Your task to perform on an android device: toggle wifi Image 0: 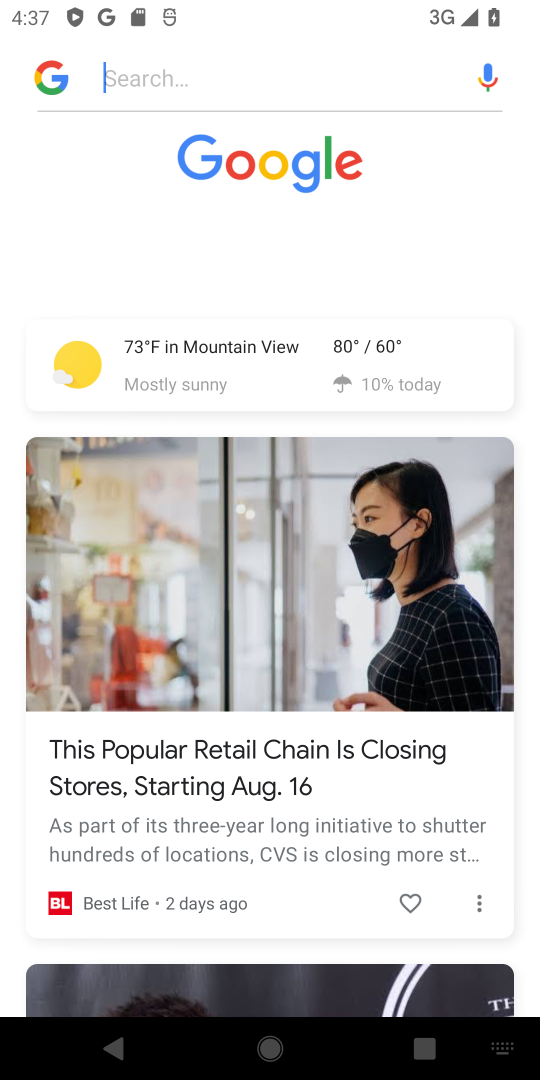
Step 0: press home button
Your task to perform on an android device: toggle wifi Image 1: 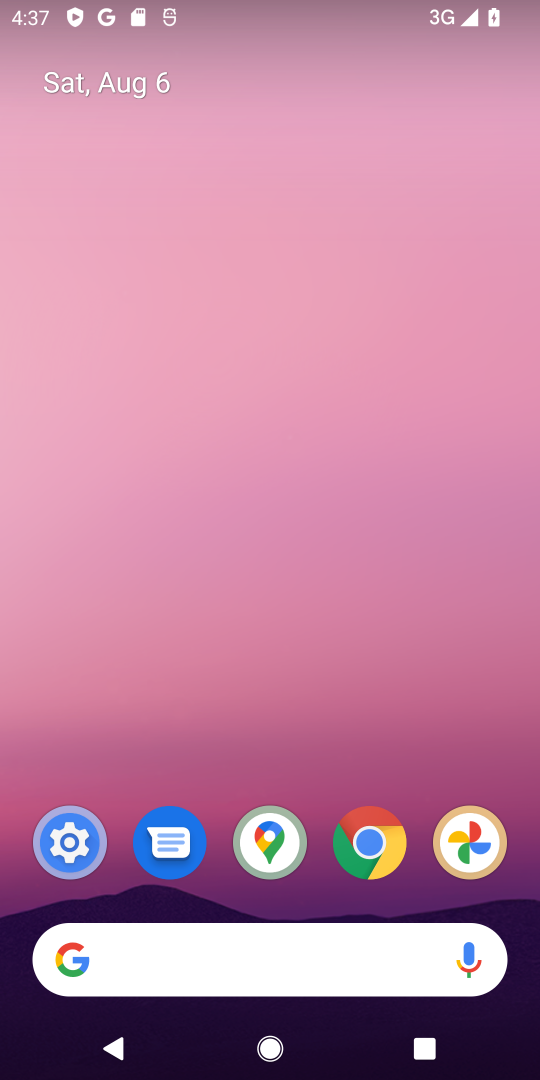
Step 1: click (59, 833)
Your task to perform on an android device: toggle wifi Image 2: 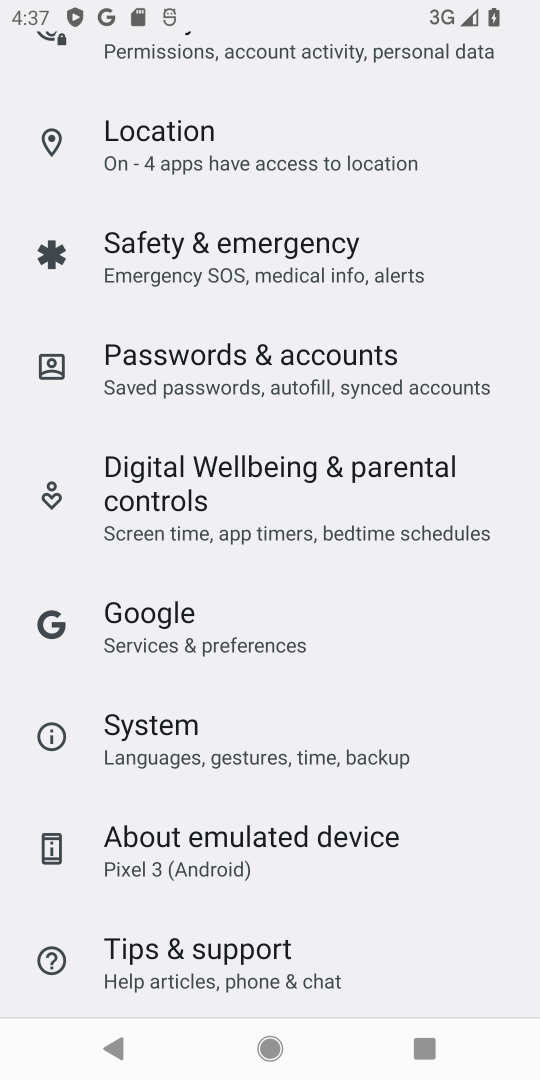
Step 2: drag from (326, 240) to (382, 752)
Your task to perform on an android device: toggle wifi Image 3: 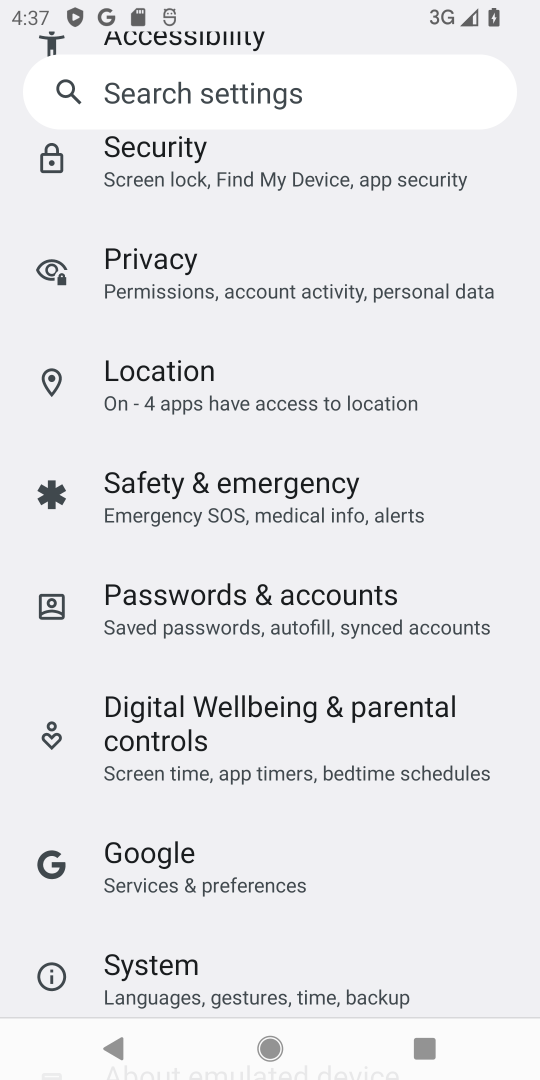
Step 3: drag from (357, 128) to (416, 793)
Your task to perform on an android device: toggle wifi Image 4: 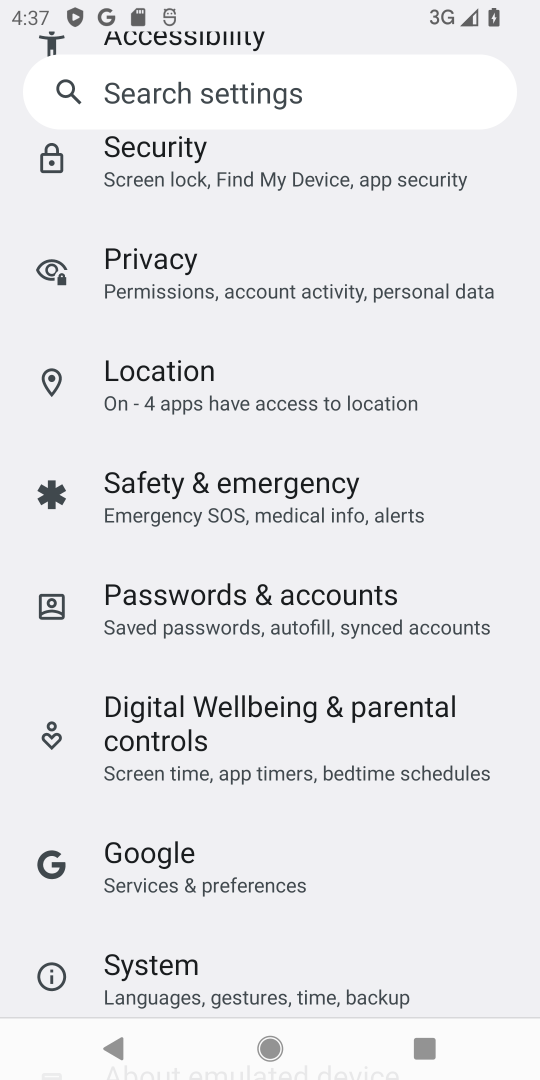
Step 4: drag from (409, 150) to (465, 877)
Your task to perform on an android device: toggle wifi Image 5: 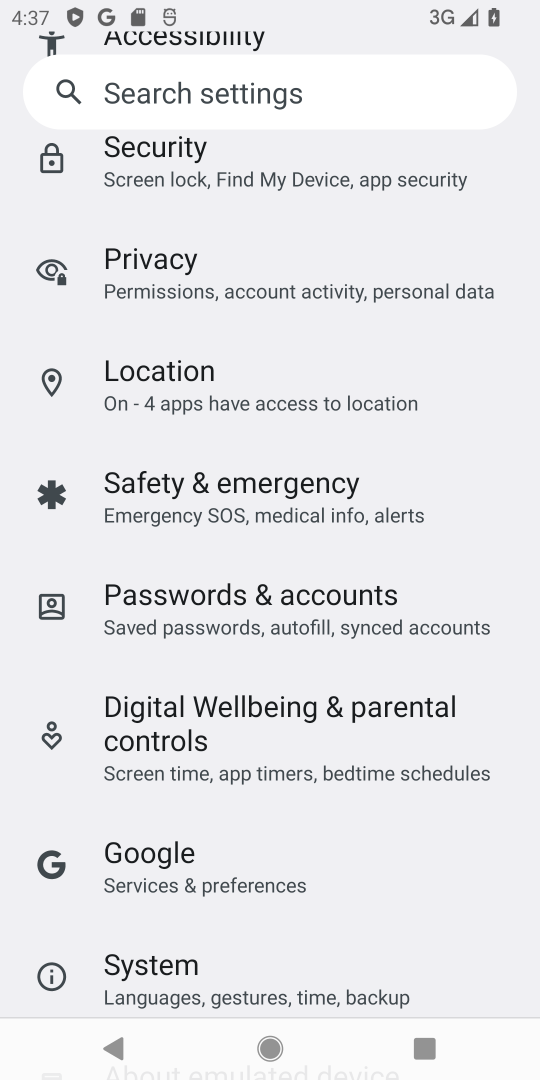
Step 5: drag from (495, 305) to (432, 897)
Your task to perform on an android device: toggle wifi Image 6: 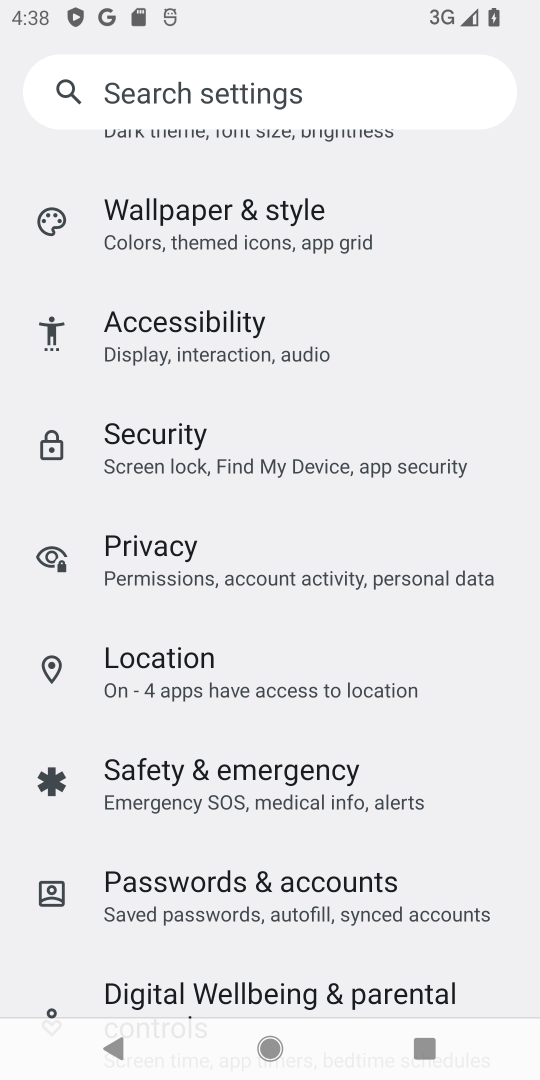
Step 6: drag from (306, 310) to (337, 983)
Your task to perform on an android device: toggle wifi Image 7: 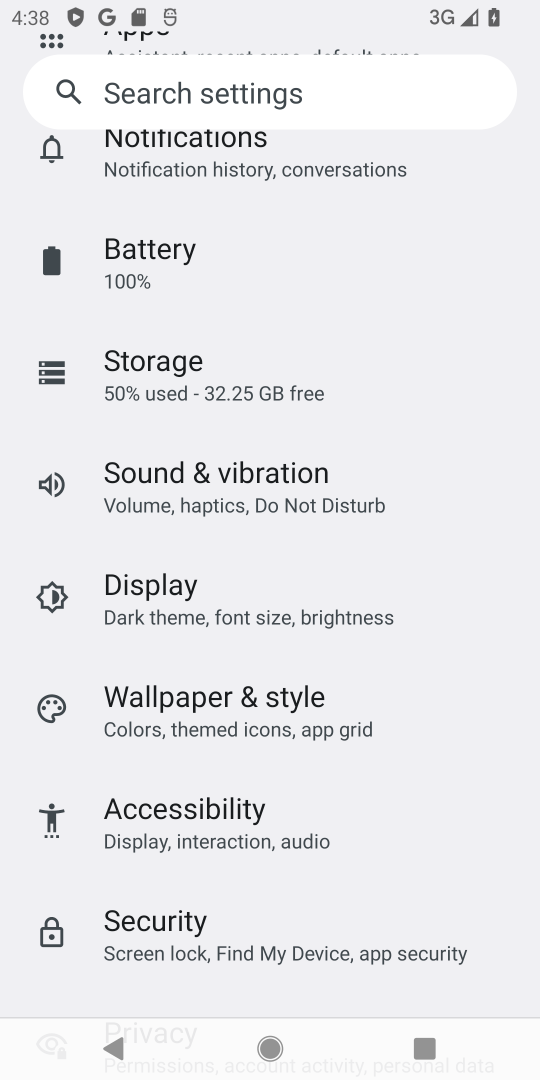
Step 7: drag from (335, 195) to (432, 924)
Your task to perform on an android device: toggle wifi Image 8: 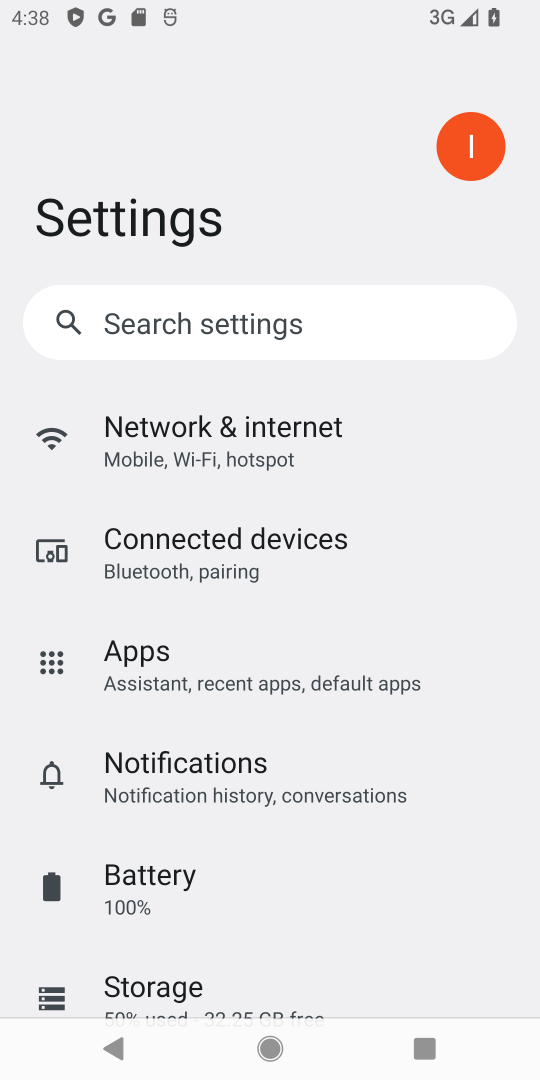
Step 8: click (189, 402)
Your task to perform on an android device: toggle wifi Image 9: 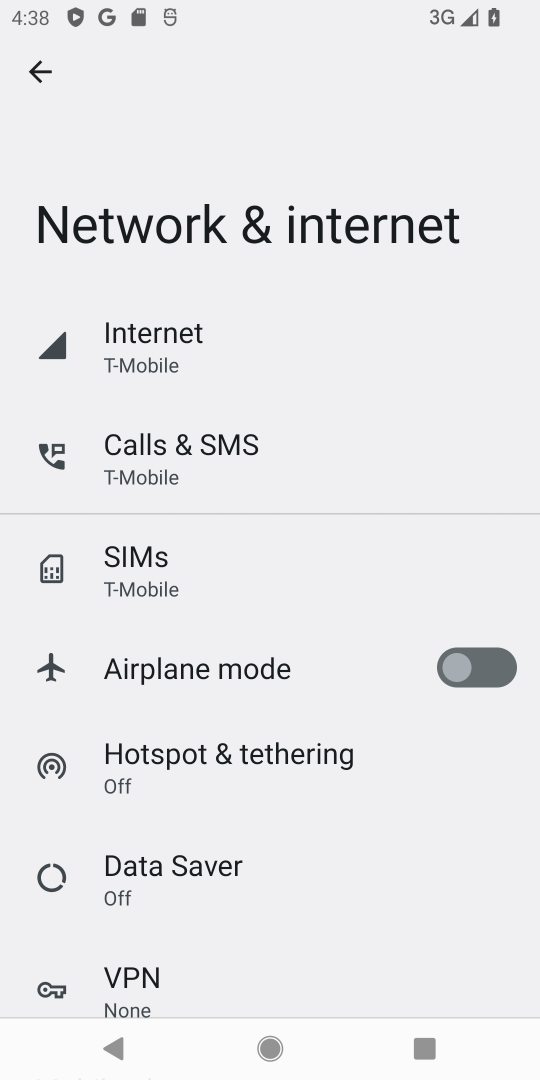
Step 9: click (131, 338)
Your task to perform on an android device: toggle wifi Image 10: 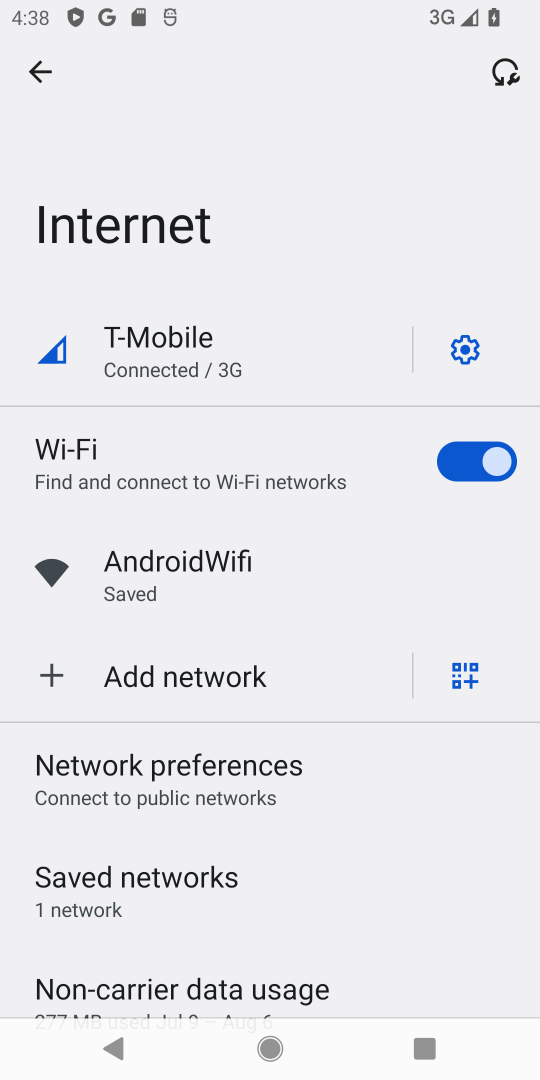
Step 10: click (121, 561)
Your task to perform on an android device: toggle wifi Image 11: 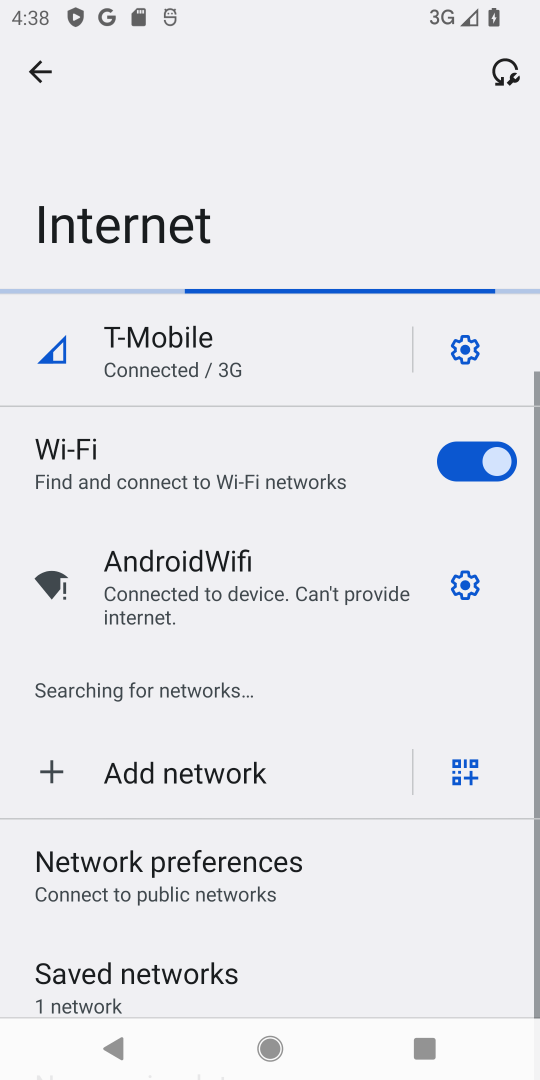
Step 11: click (445, 459)
Your task to perform on an android device: toggle wifi Image 12: 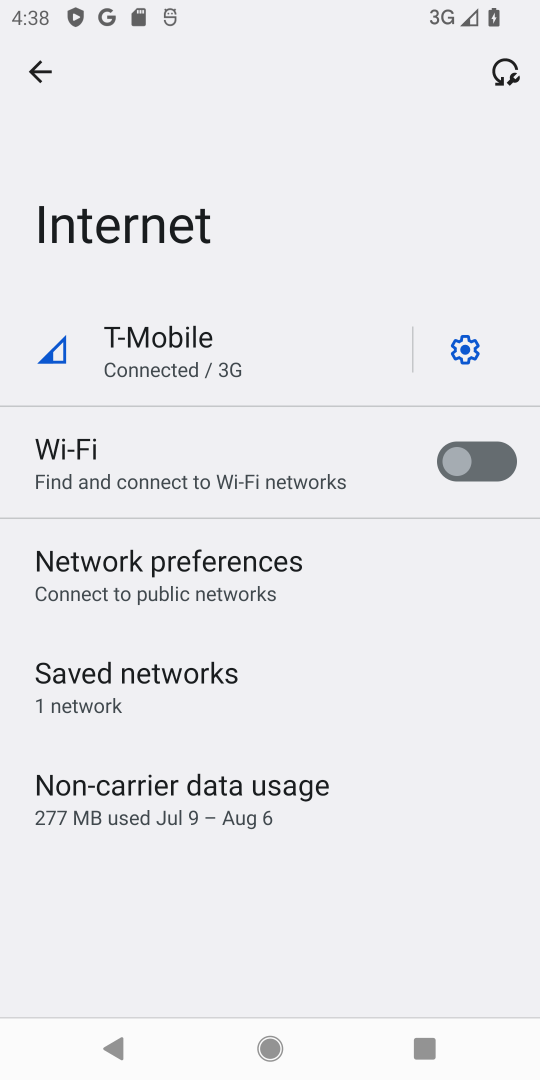
Step 12: task complete